Your task to perform on an android device: turn on location history Image 0: 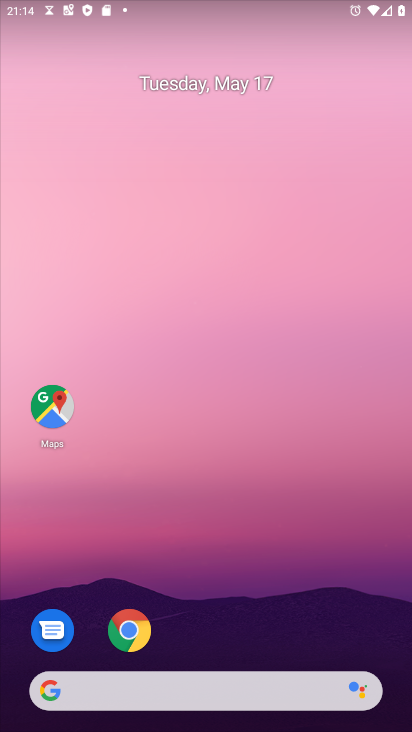
Step 0: drag from (166, 633) to (200, 208)
Your task to perform on an android device: turn on location history Image 1: 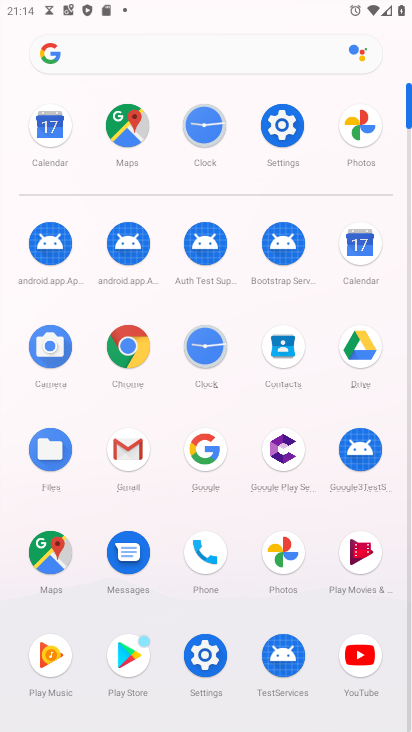
Step 1: click (291, 119)
Your task to perform on an android device: turn on location history Image 2: 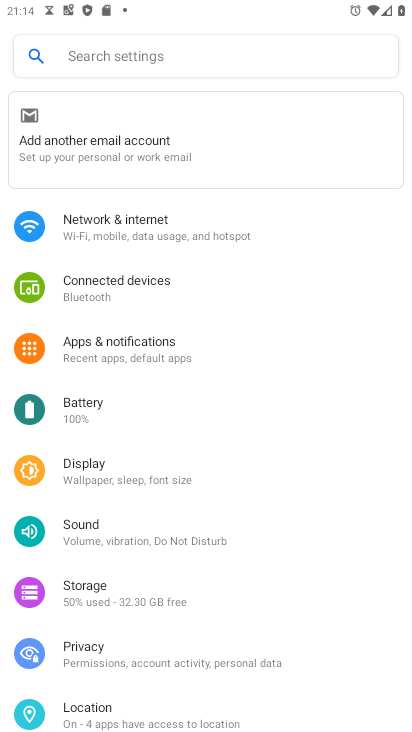
Step 2: click (113, 715)
Your task to perform on an android device: turn on location history Image 3: 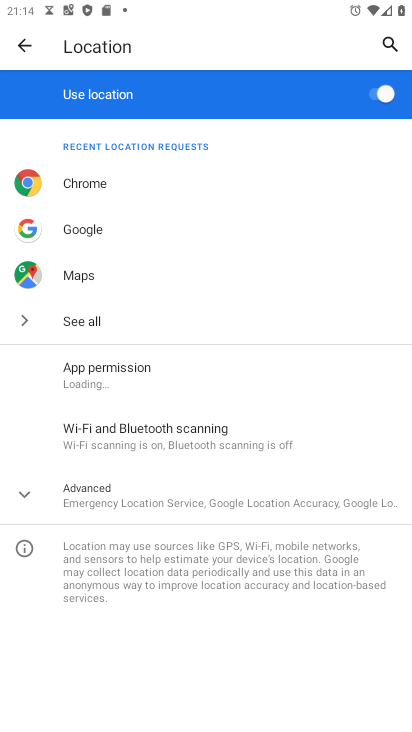
Step 3: click (131, 494)
Your task to perform on an android device: turn on location history Image 4: 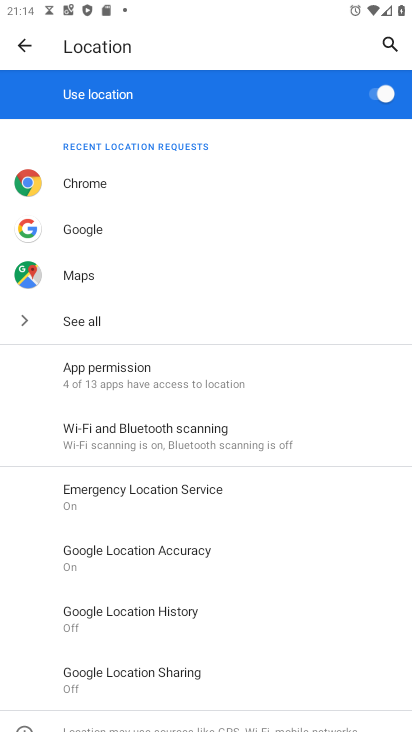
Step 4: click (112, 617)
Your task to perform on an android device: turn on location history Image 5: 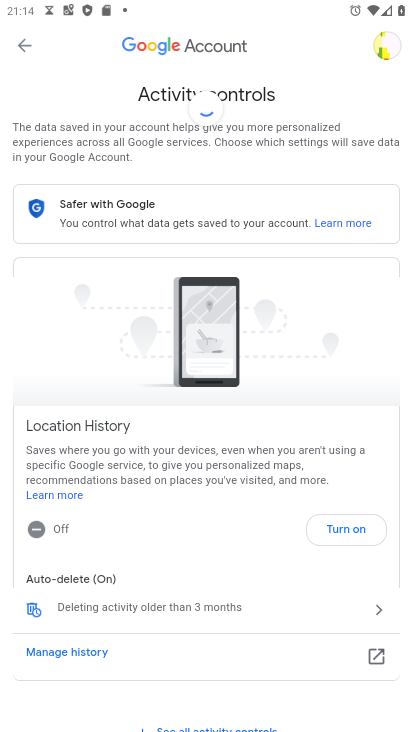
Step 5: click (354, 520)
Your task to perform on an android device: turn on location history Image 6: 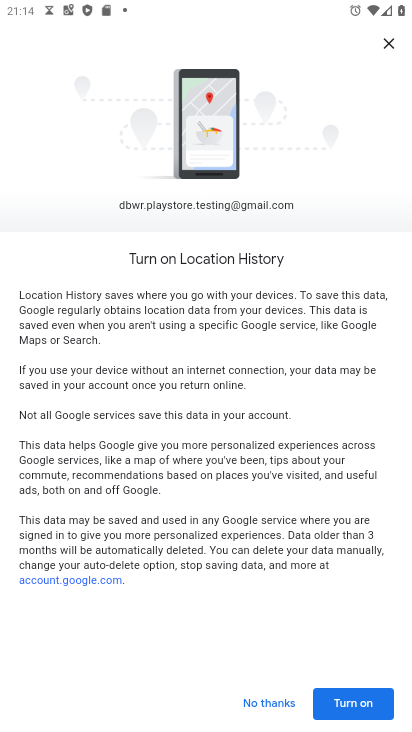
Step 6: click (345, 713)
Your task to perform on an android device: turn on location history Image 7: 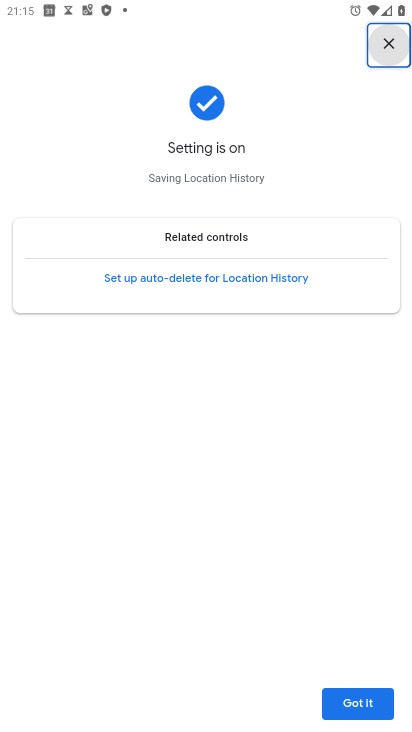
Step 7: task complete